Your task to perform on an android device: When is my next appointment? Image 0: 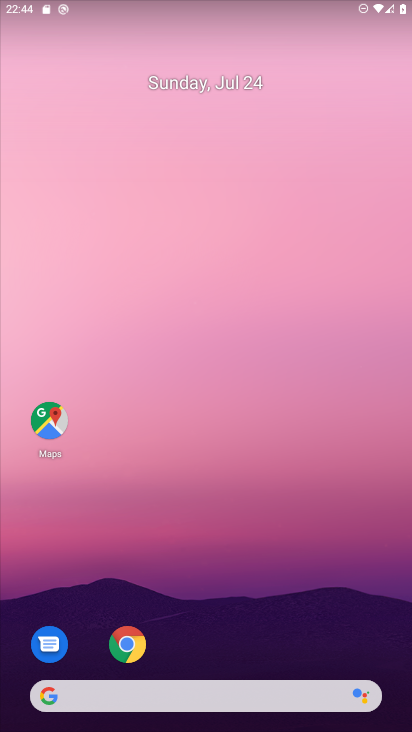
Step 0: drag from (390, 646) to (342, 163)
Your task to perform on an android device: When is my next appointment? Image 1: 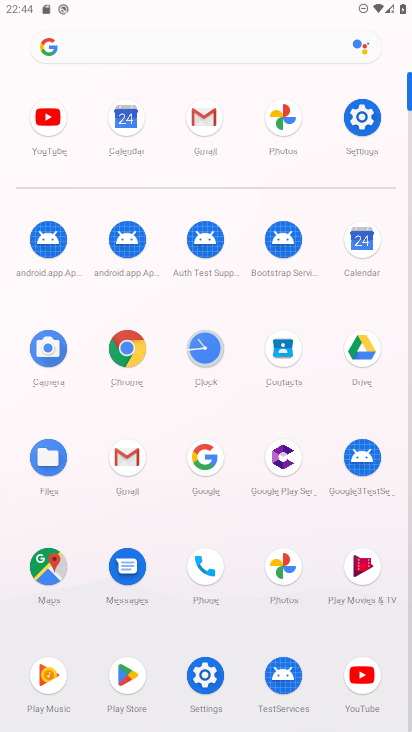
Step 1: click (357, 242)
Your task to perform on an android device: When is my next appointment? Image 2: 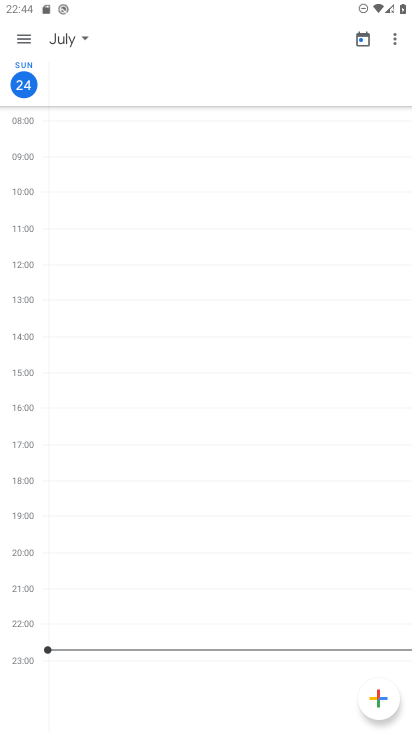
Step 2: click (21, 34)
Your task to perform on an android device: When is my next appointment? Image 3: 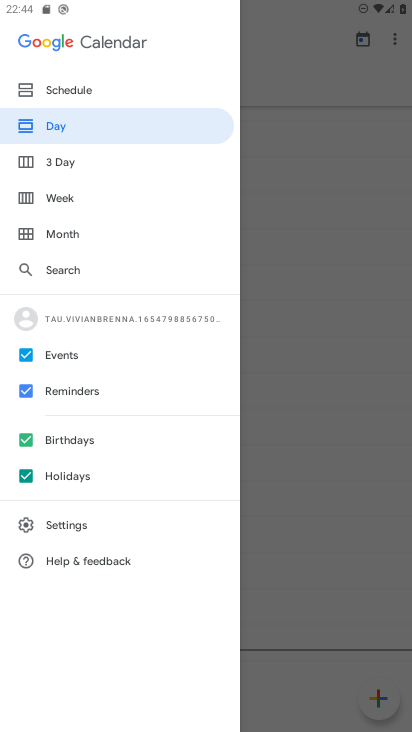
Step 3: click (64, 87)
Your task to perform on an android device: When is my next appointment? Image 4: 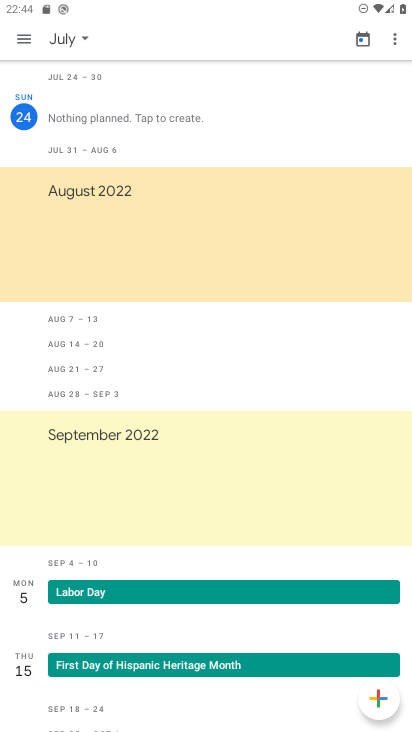
Step 4: task complete